Your task to perform on an android device: see tabs open on other devices in the chrome app Image 0: 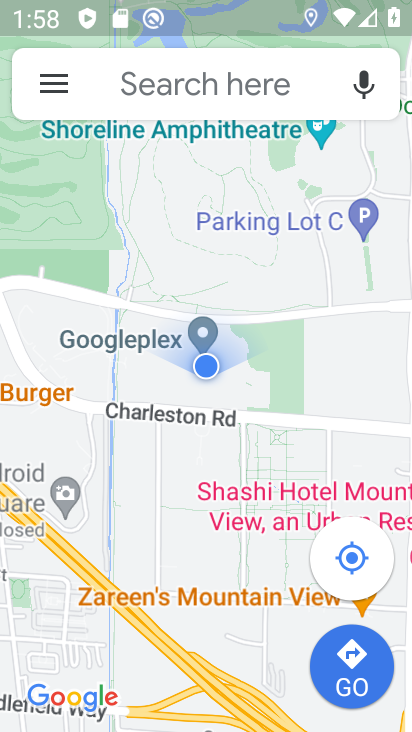
Step 0: press home button
Your task to perform on an android device: see tabs open on other devices in the chrome app Image 1: 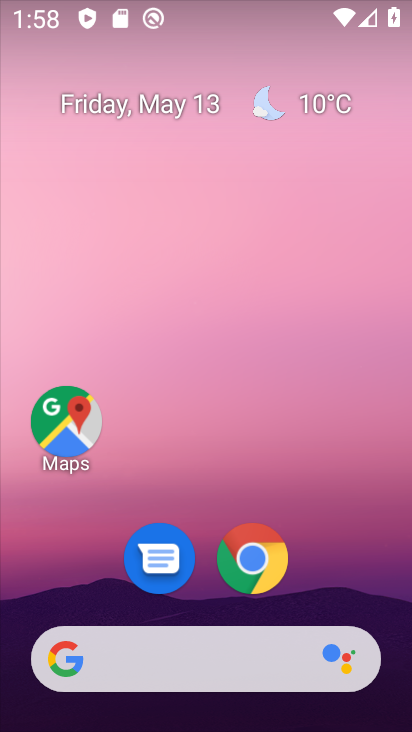
Step 1: click (254, 553)
Your task to perform on an android device: see tabs open on other devices in the chrome app Image 2: 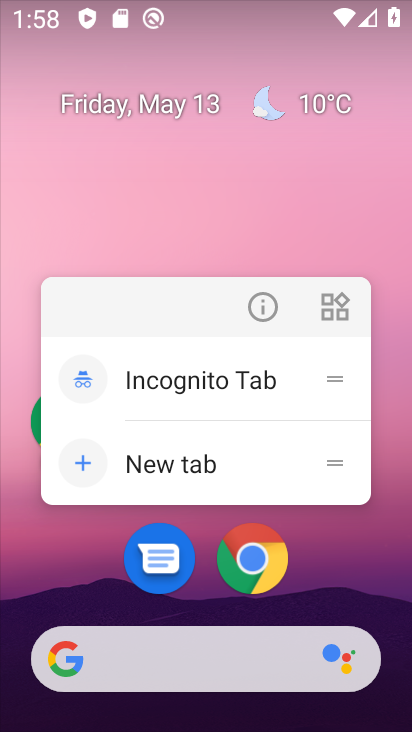
Step 2: click (270, 568)
Your task to perform on an android device: see tabs open on other devices in the chrome app Image 3: 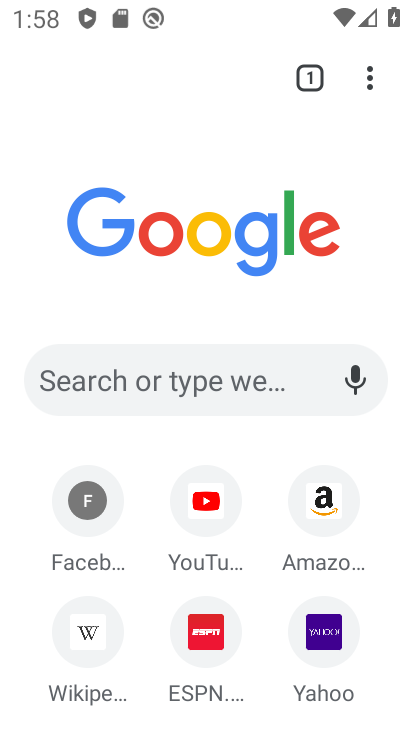
Step 3: task complete